Your task to perform on an android device: Open the stopwatch Image 0: 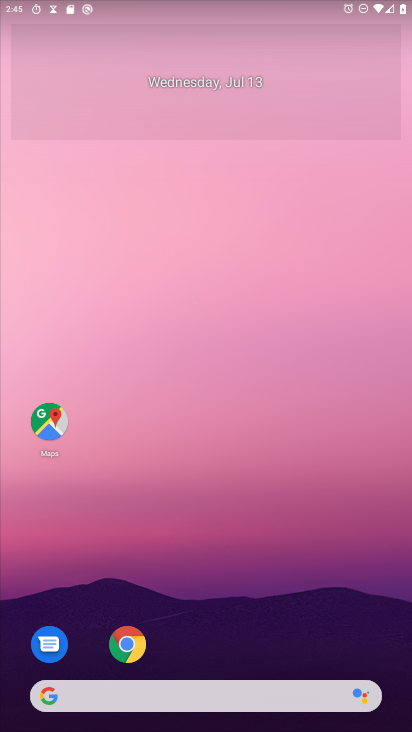
Step 0: press home button
Your task to perform on an android device: Open the stopwatch Image 1: 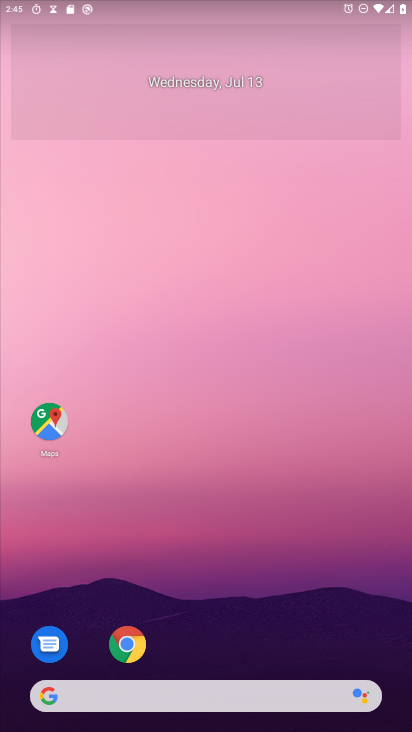
Step 1: drag from (244, 614) to (240, 163)
Your task to perform on an android device: Open the stopwatch Image 2: 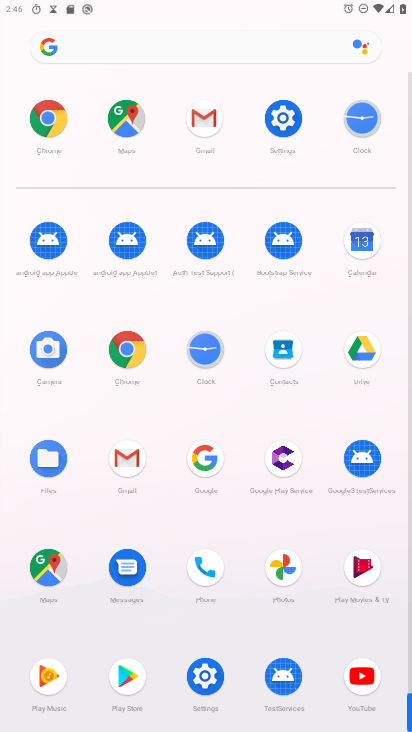
Step 2: click (365, 111)
Your task to perform on an android device: Open the stopwatch Image 3: 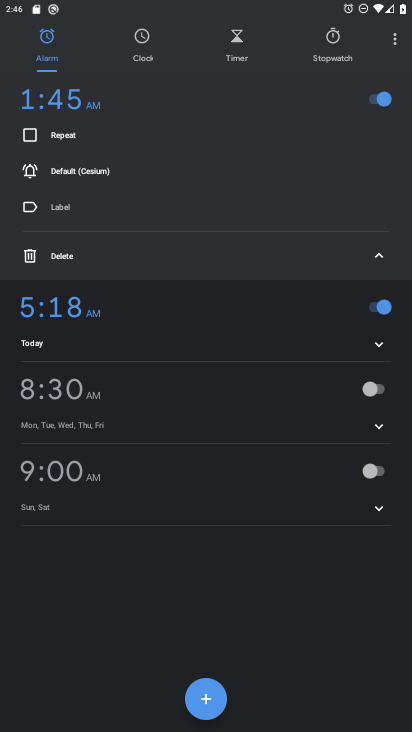
Step 3: click (325, 42)
Your task to perform on an android device: Open the stopwatch Image 4: 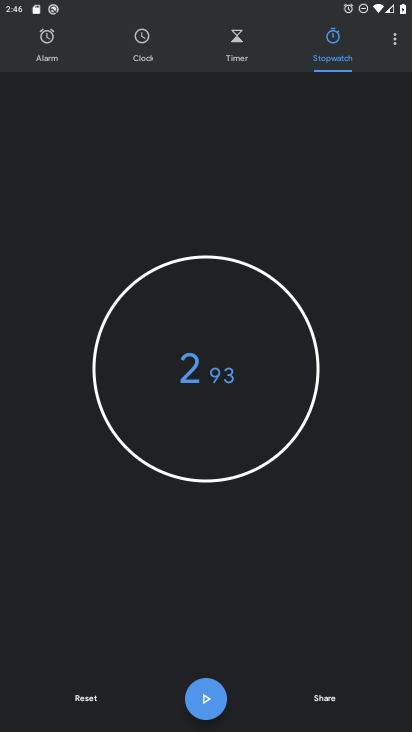
Step 4: task complete